Your task to perform on an android device: turn off wifi Image 0: 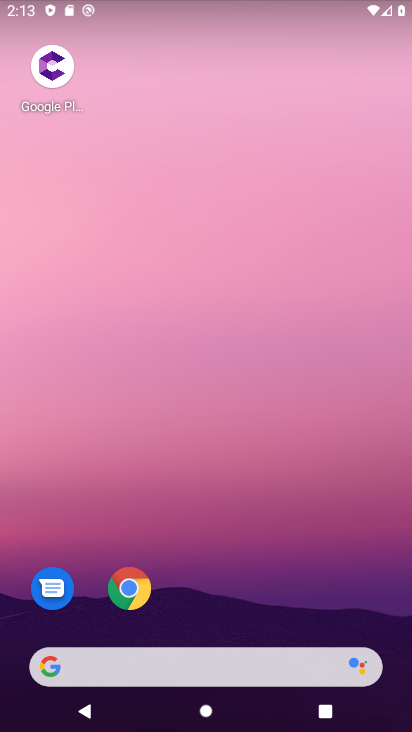
Step 0: drag from (211, 81) to (362, 281)
Your task to perform on an android device: turn off wifi Image 1: 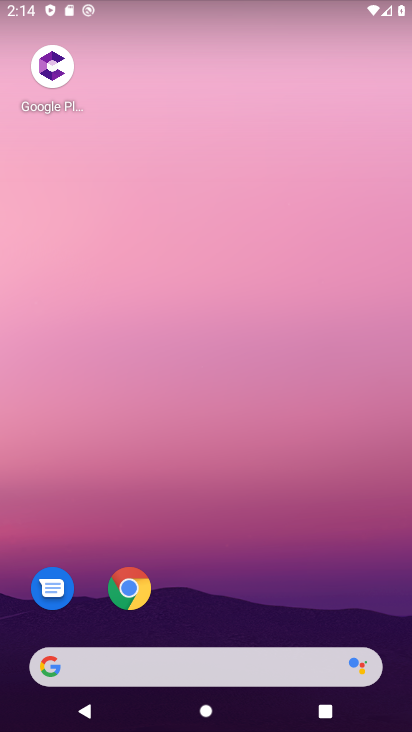
Step 1: drag from (209, 457) to (216, 578)
Your task to perform on an android device: turn off wifi Image 2: 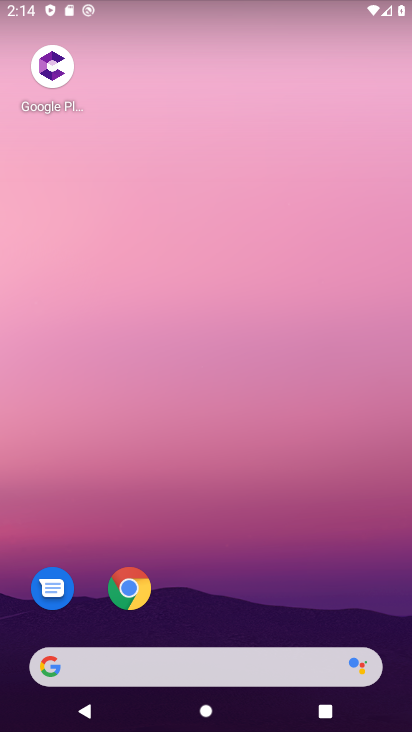
Step 2: drag from (179, 10) to (236, 0)
Your task to perform on an android device: turn off wifi Image 3: 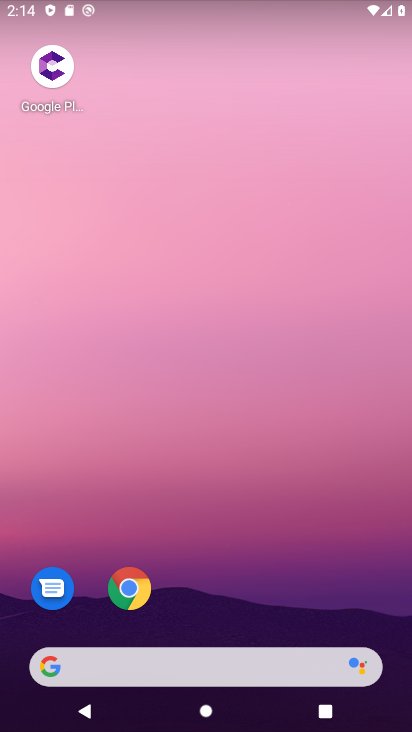
Step 3: drag from (236, 425) to (405, 542)
Your task to perform on an android device: turn off wifi Image 4: 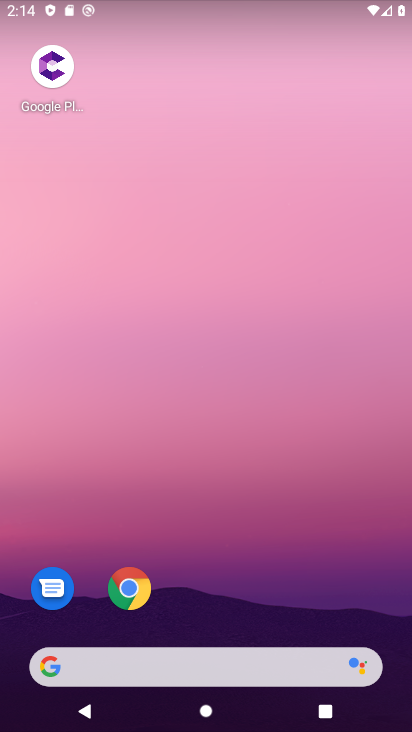
Step 4: click (243, 624)
Your task to perform on an android device: turn off wifi Image 5: 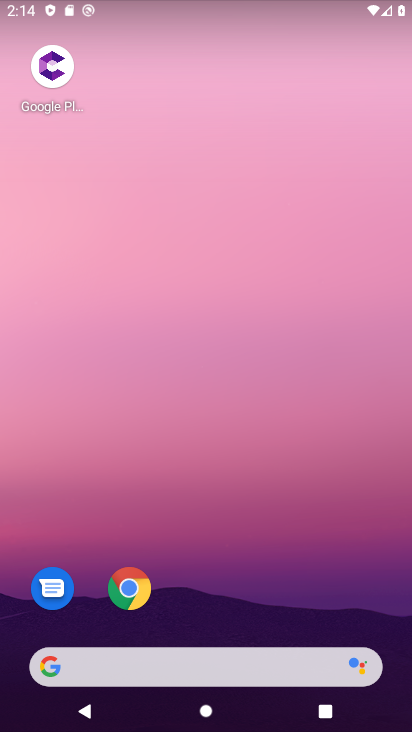
Step 5: drag from (229, 317) to (213, 241)
Your task to perform on an android device: turn off wifi Image 6: 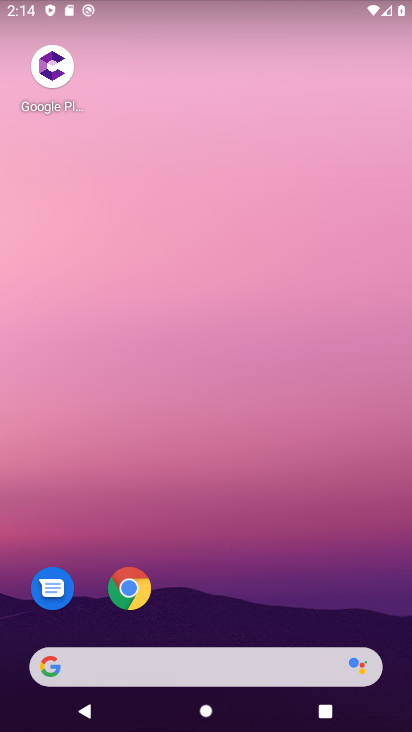
Step 6: drag from (189, 627) to (375, 155)
Your task to perform on an android device: turn off wifi Image 7: 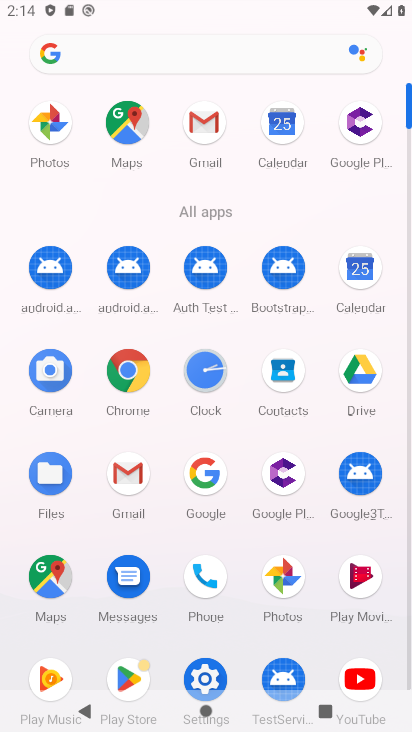
Step 7: click (204, 670)
Your task to perform on an android device: turn off wifi Image 8: 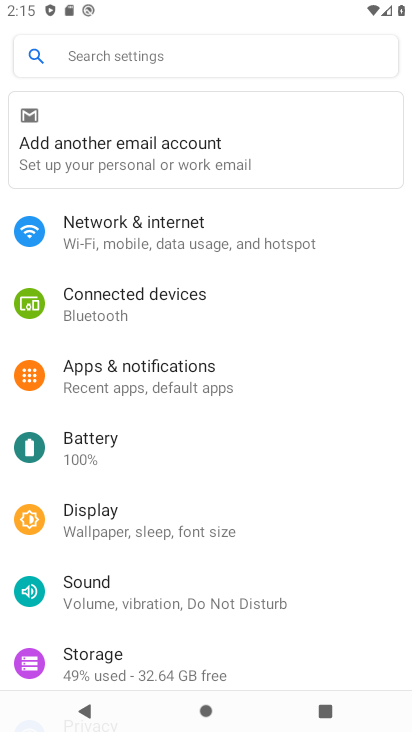
Step 8: click (268, 240)
Your task to perform on an android device: turn off wifi Image 9: 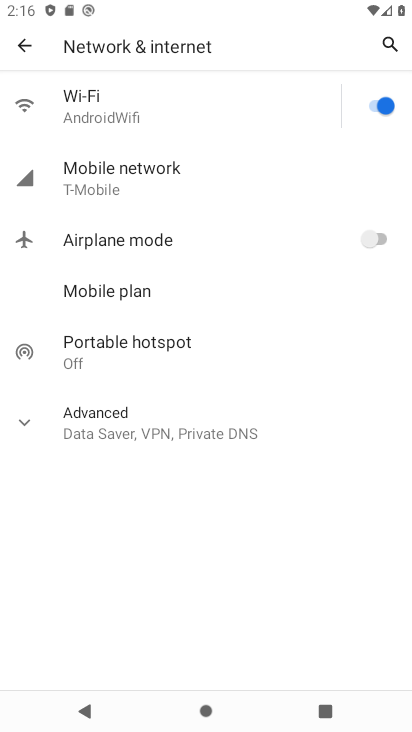
Step 9: click (381, 92)
Your task to perform on an android device: turn off wifi Image 10: 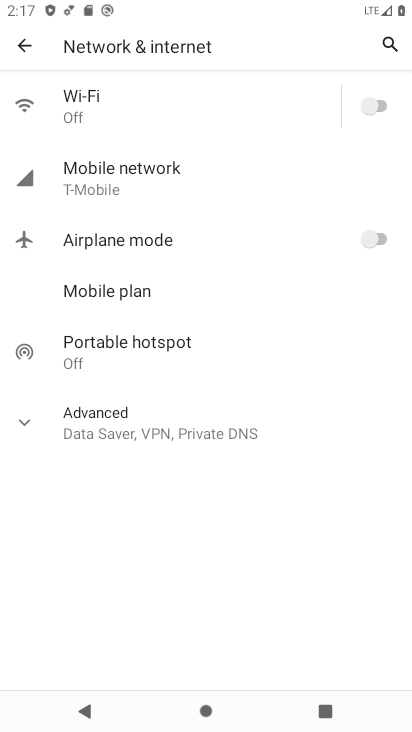
Step 10: task complete